Your task to perform on an android device: Show me the alarms in the clock app Image 0: 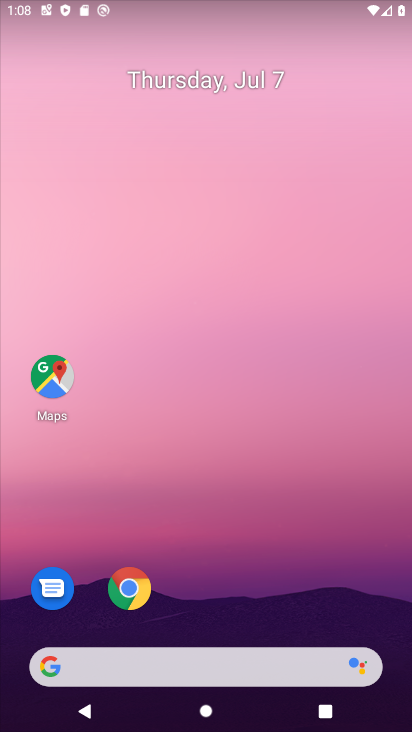
Step 0: drag from (248, 625) to (286, 211)
Your task to perform on an android device: Show me the alarms in the clock app Image 1: 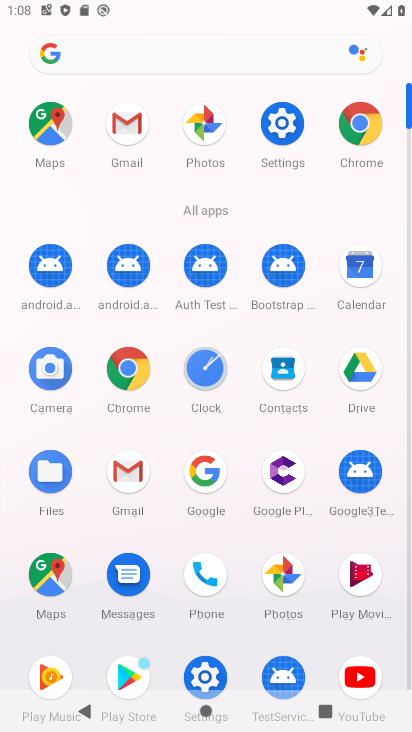
Step 1: click (196, 387)
Your task to perform on an android device: Show me the alarms in the clock app Image 2: 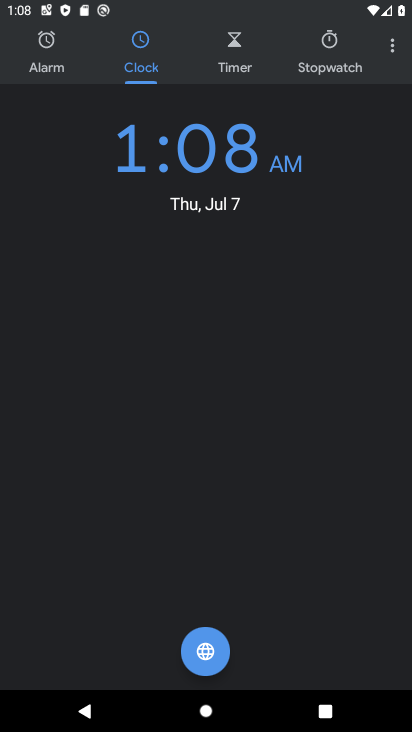
Step 2: click (40, 36)
Your task to perform on an android device: Show me the alarms in the clock app Image 3: 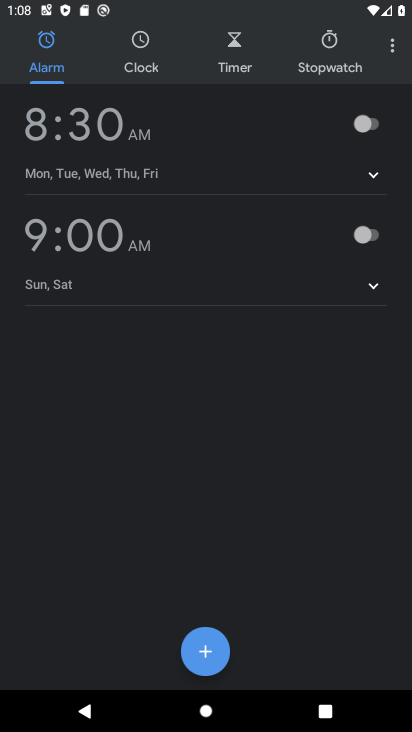
Step 3: task complete